Your task to perform on an android device: What is the recent news? Image 0: 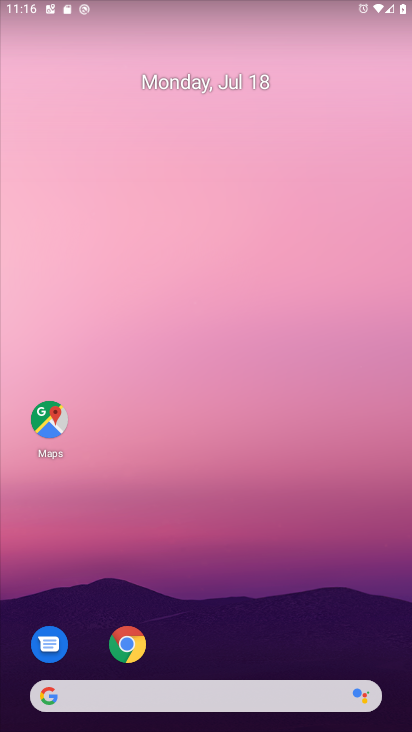
Step 0: drag from (276, 655) to (264, 237)
Your task to perform on an android device: What is the recent news? Image 1: 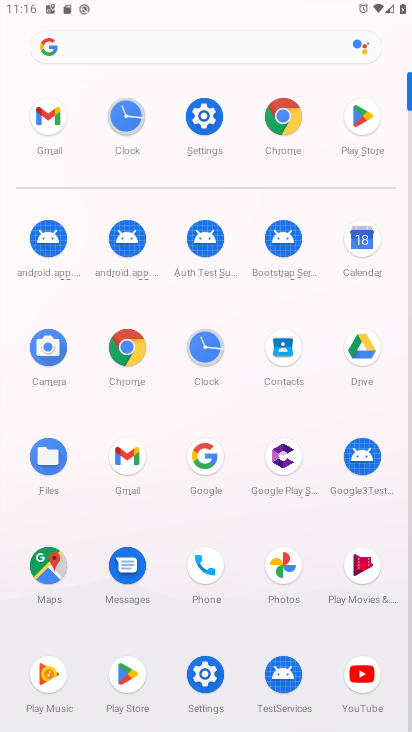
Step 1: click (169, 50)
Your task to perform on an android device: What is the recent news? Image 2: 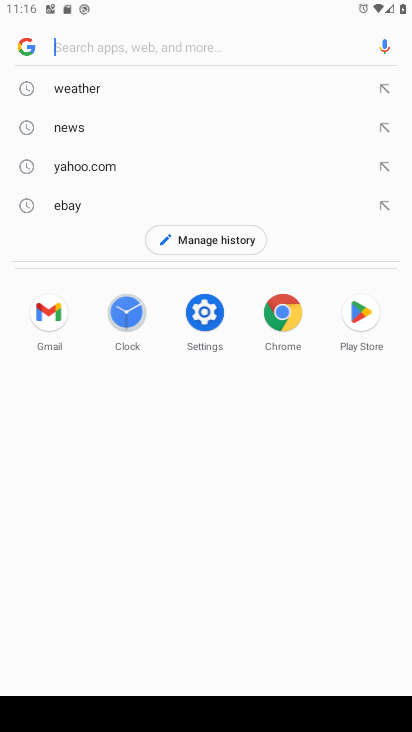
Step 2: click (97, 128)
Your task to perform on an android device: What is the recent news? Image 3: 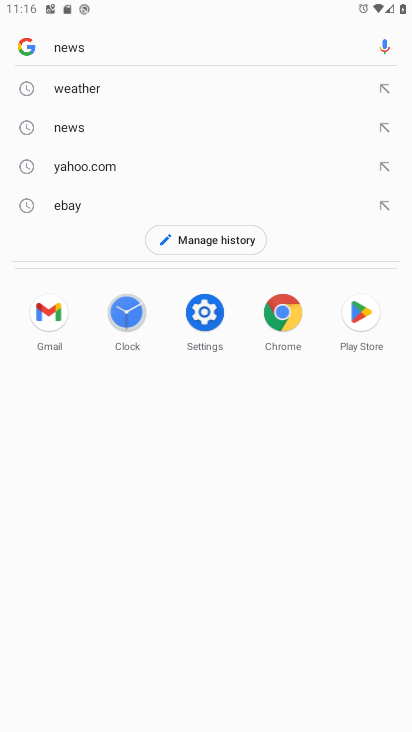
Step 3: task complete